Your task to perform on an android device: uninstall "Firefox Browser" Image 0: 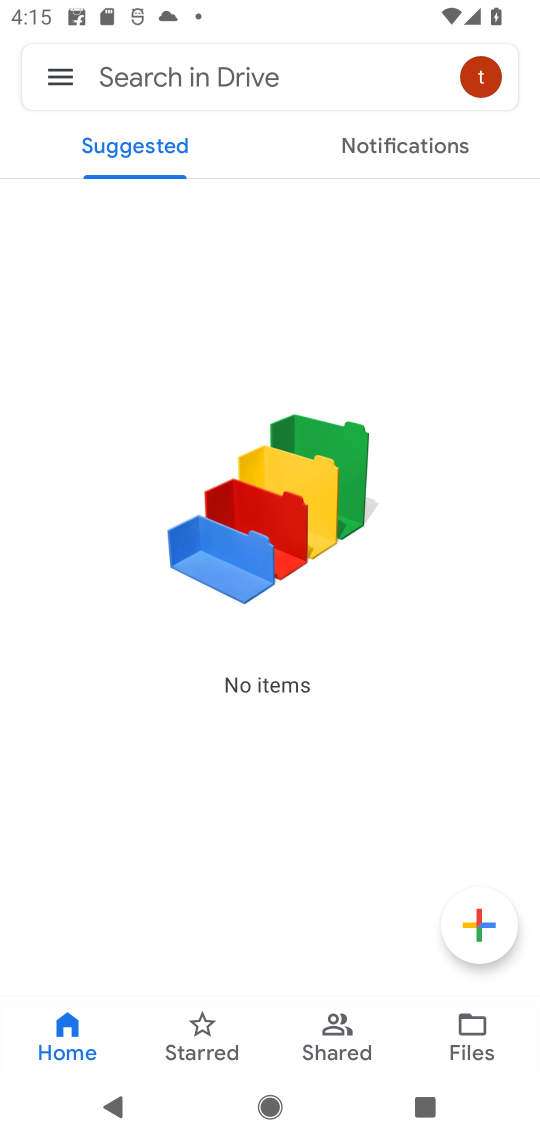
Step 0: press home button
Your task to perform on an android device: uninstall "Firefox Browser" Image 1: 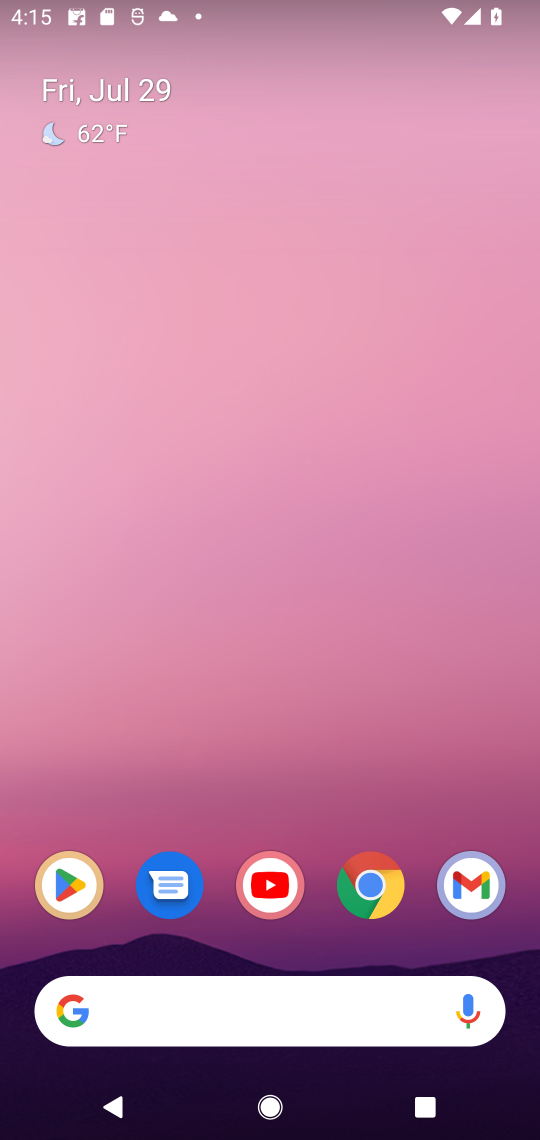
Step 1: click (83, 890)
Your task to perform on an android device: uninstall "Firefox Browser" Image 2: 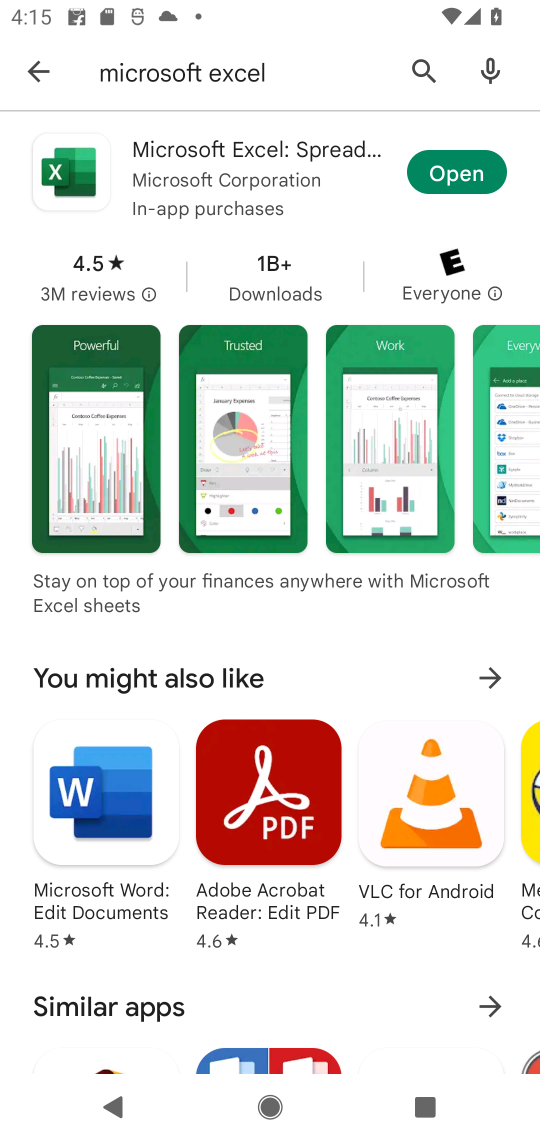
Step 2: click (421, 66)
Your task to perform on an android device: uninstall "Firefox Browser" Image 3: 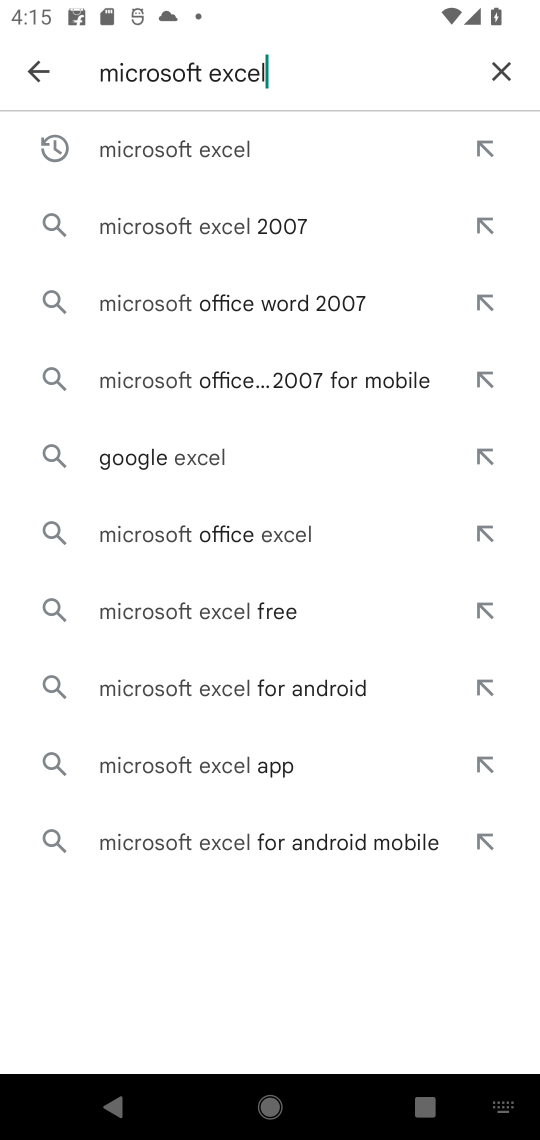
Step 3: click (505, 71)
Your task to perform on an android device: uninstall "Firefox Browser" Image 4: 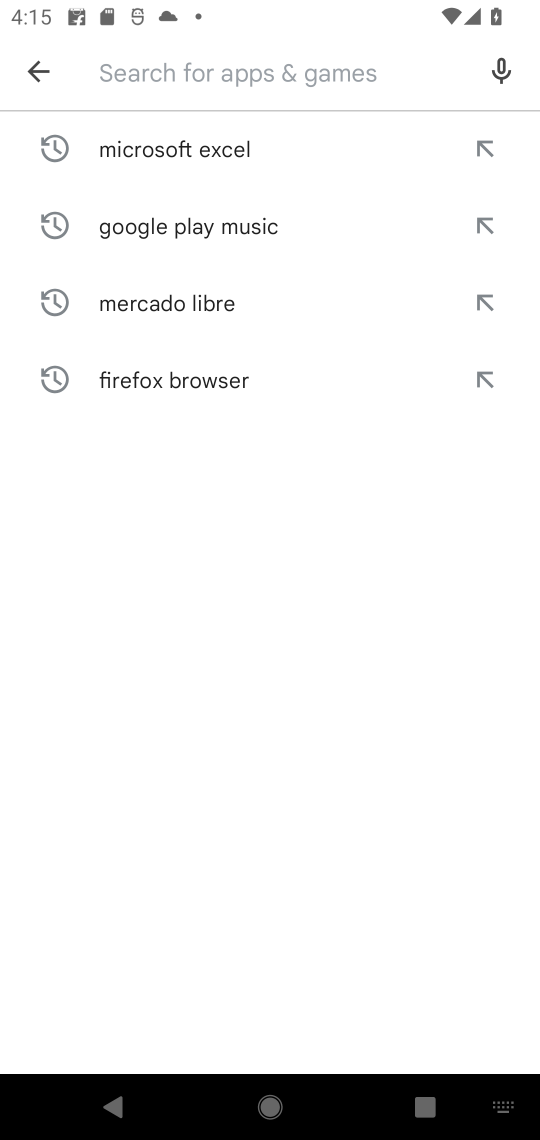
Step 4: type "Firefox Browser"
Your task to perform on an android device: uninstall "Firefox Browser" Image 5: 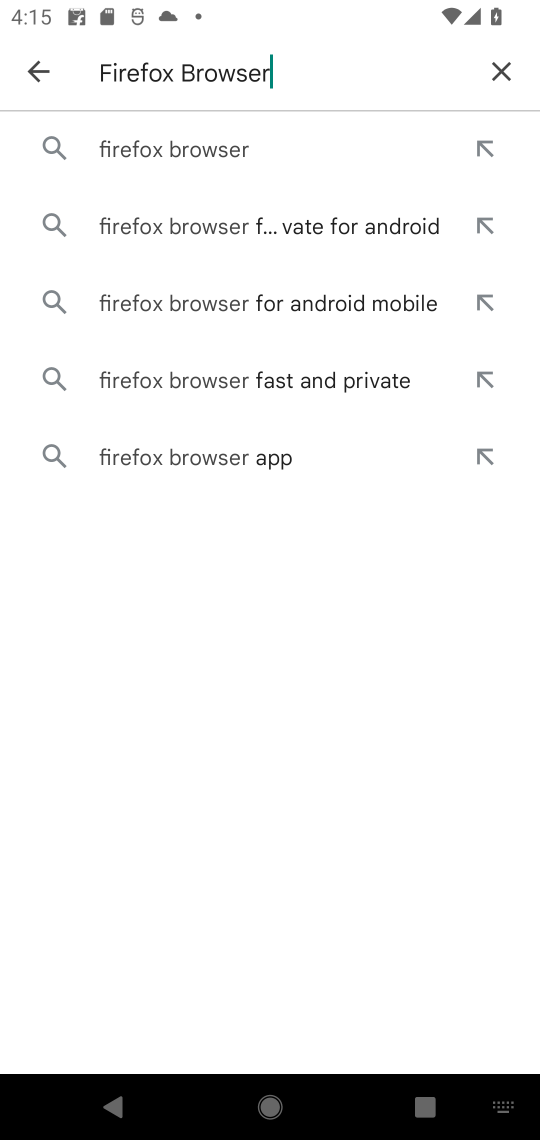
Step 5: click (117, 133)
Your task to perform on an android device: uninstall "Firefox Browser" Image 6: 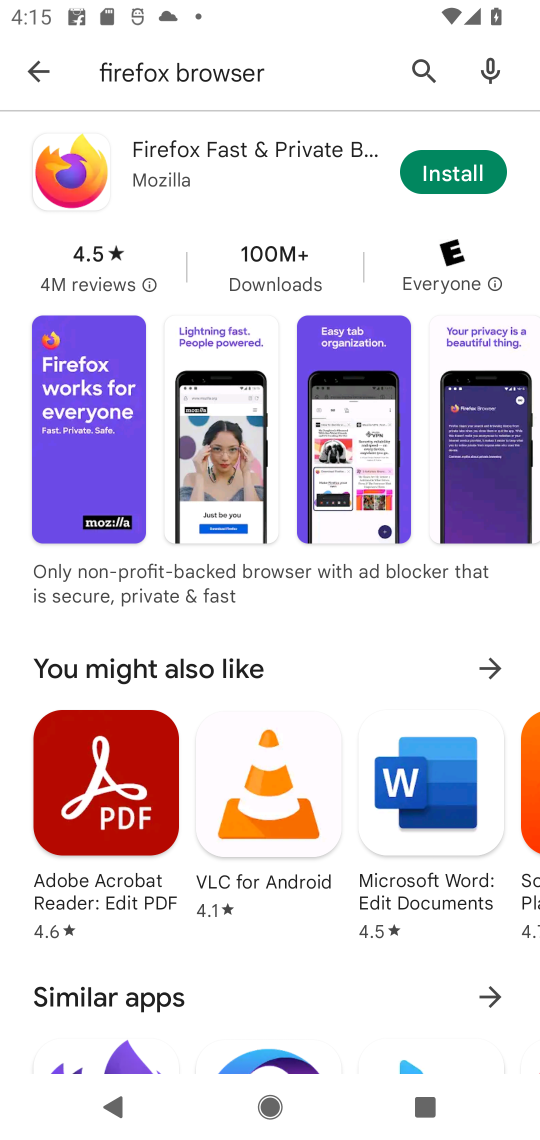
Step 6: task complete